Your task to perform on an android device: stop showing notifications on the lock screen Image 0: 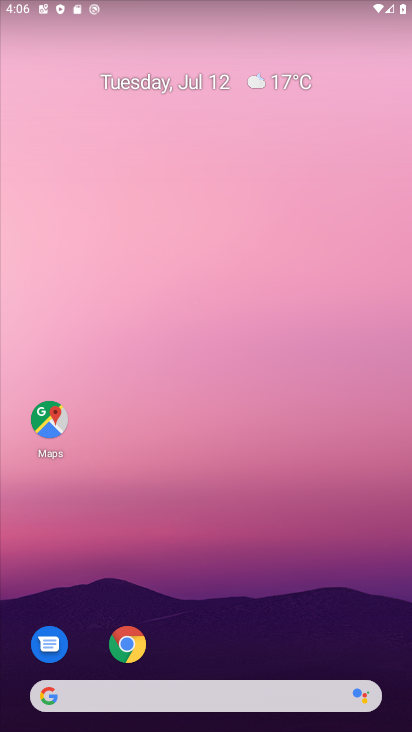
Step 0: drag from (254, 649) to (276, 41)
Your task to perform on an android device: stop showing notifications on the lock screen Image 1: 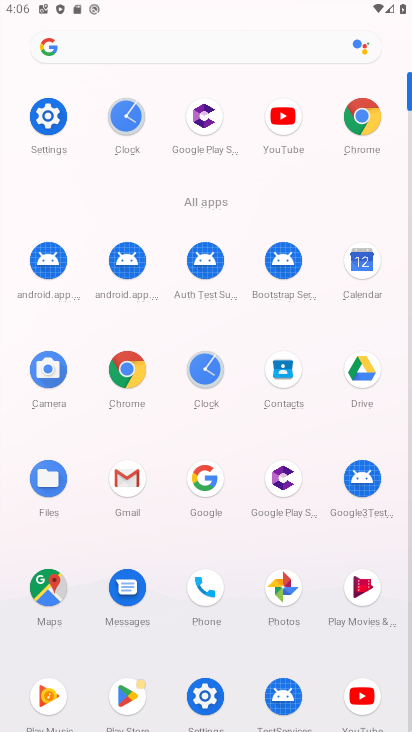
Step 1: click (44, 106)
Your task to perform on an android device: stop showing notifications on the lock screen Image 2: 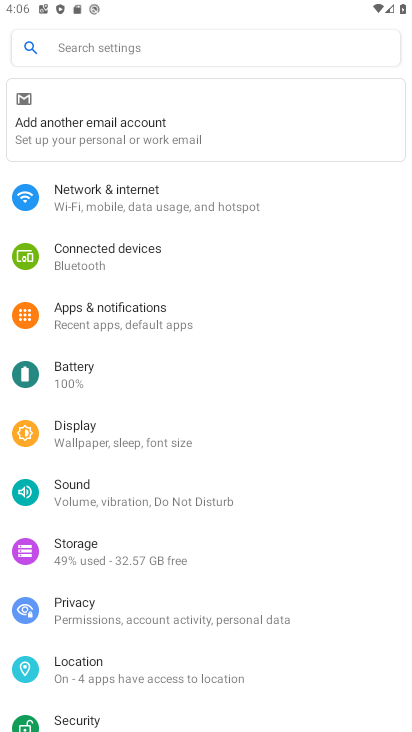
Step 2: click (183, 323)
Your task to perform on an android device: stop showing notifications on the lock screen Image 3: 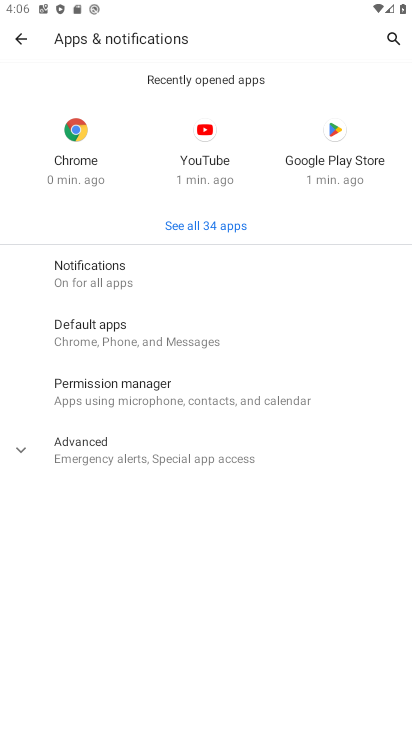
Step 3: click (160, 273)
Your task to perform on an android device: stop showing notifications on the lock screen Image 4: 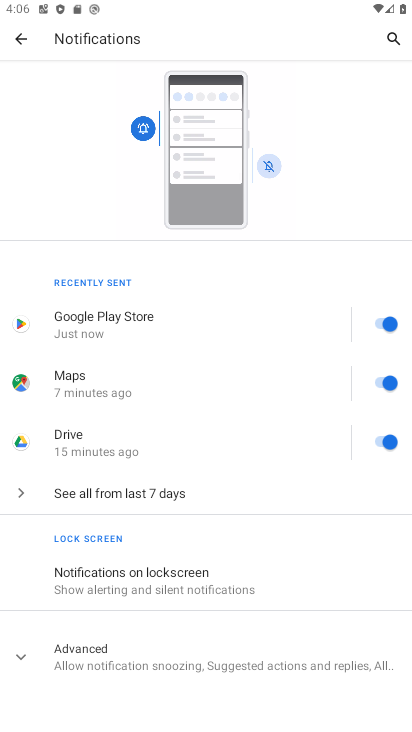
Step 4: click (199, 574)
Your task to perform on an android device: stop showing notifications on the lock screen Image 5: 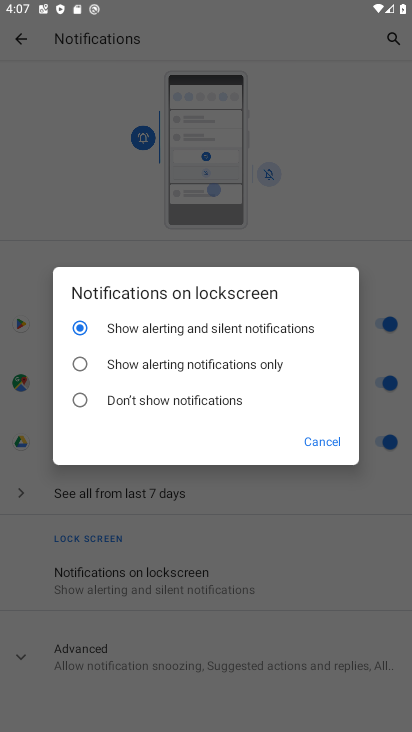
Step 5: click (204, 399)
Your task to perform on an android device: stop showing notifications on the lock screen Image 6: 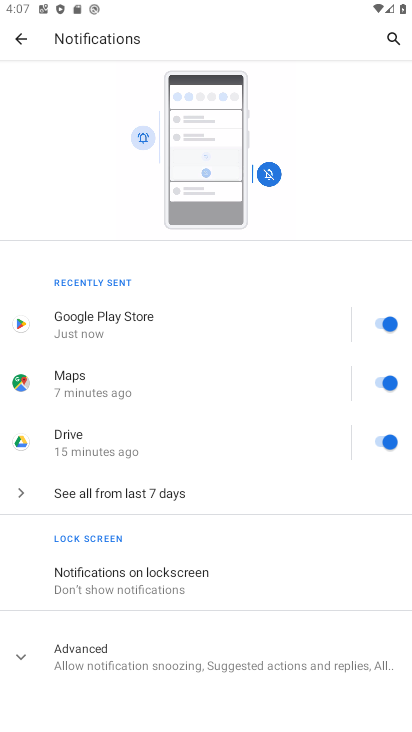
Step 6: task complete